Your task to perform on an android device: open a bookmark in the chrome app Image 0: 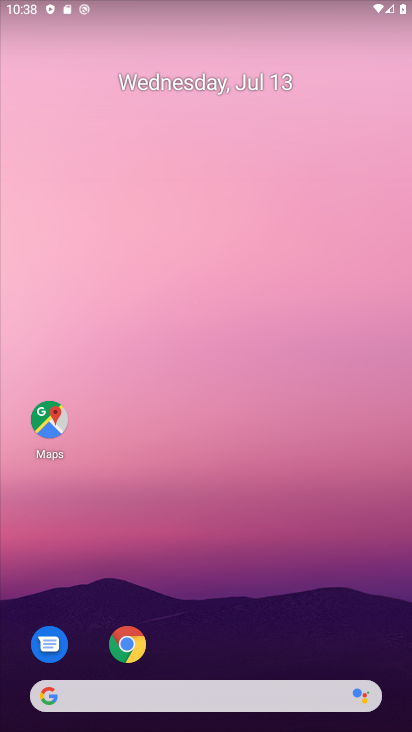
Step 0: click (200, 75)
Your task to perform on an android device: open a bookmark in the chrome app Image 1: 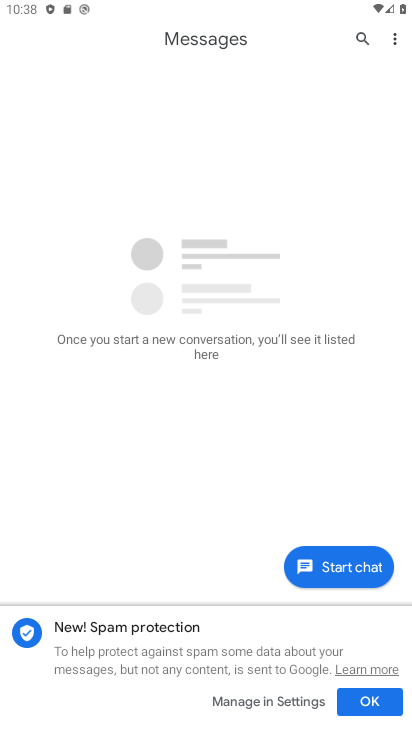
Step 1: press home button
Your task to perform on an android device: open a bookmark in the chrome app Image 2: 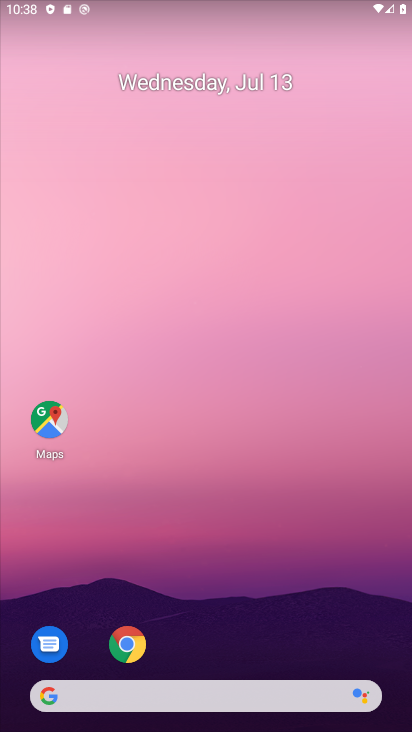
Step 2: click (129, 645)
Your task to perform on an android device: open a bookmark in the chrome app Image 3: 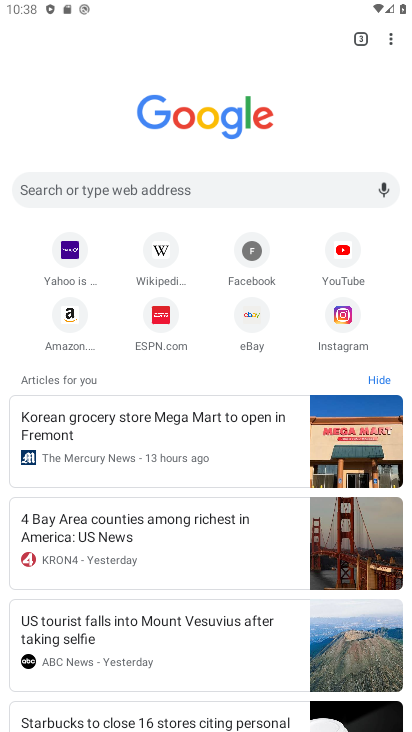
Step 3: click (393, 36)
Your task to perform on an android device: open a bookmark in the chrome app Image 4: 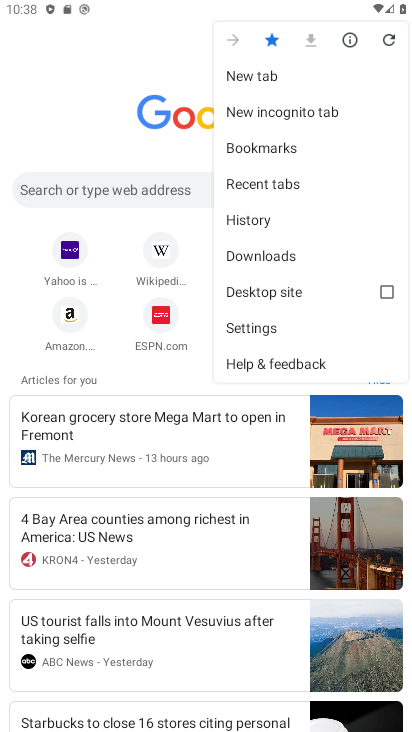
Step 4: click (263, 143)
Your task to perform on an android device: open a bookmark in the chrome app Image 5: 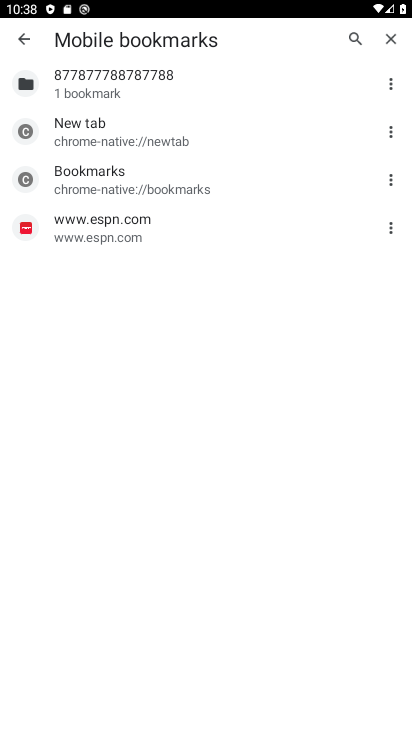
Step 5: task complete